Your task to perform on an android device: Turn on the flashlight Image 0: 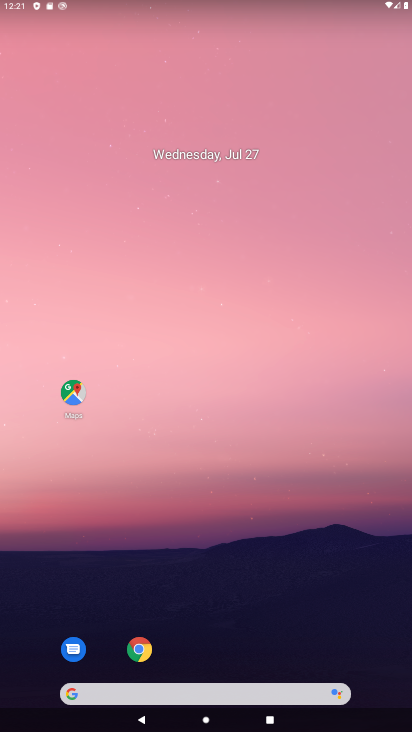
Step 0: drag from (191, 9) to (254, 505)
Your task to perform on an android device: Turn on the flashlight Image 1: 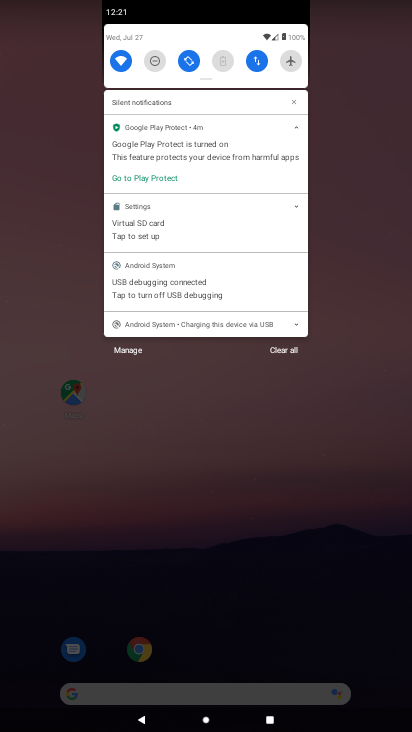
Step 1: drag from (206, 67) to (277, 490)
Your task to perform on an android device: Turn on the flashlight Image 2: 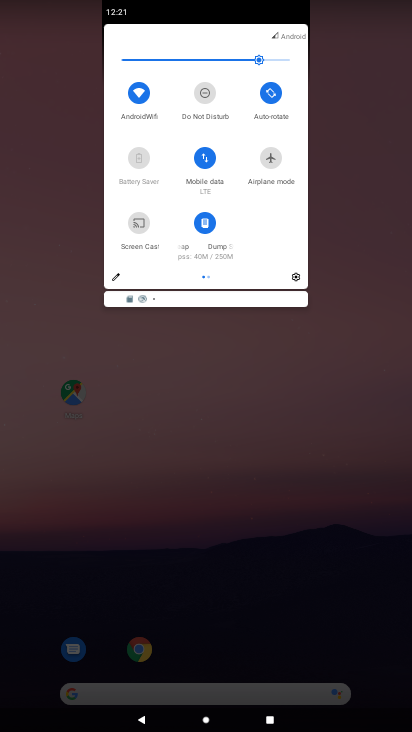
Step 2: click (108, 272)
Your task to perform on an android device: Turn on the flashlight Image 3: 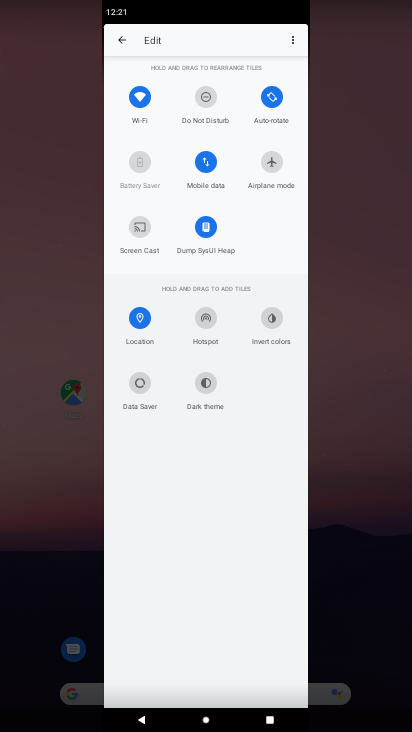
Step 3: task complete